Your task to perform on an android device: Go to location settings Image 0: 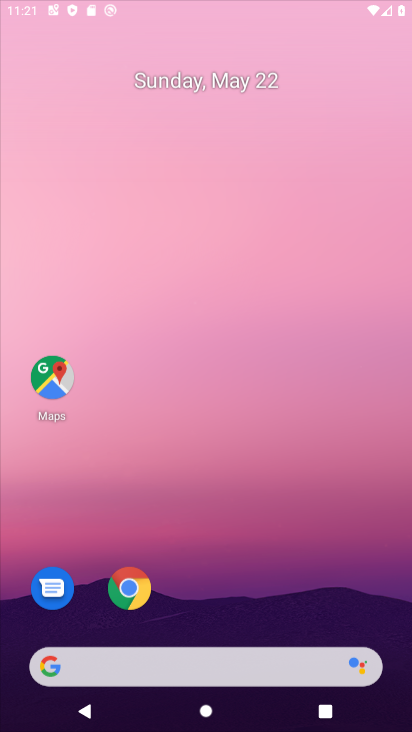
Step 0: click (116, 191)
Your task to perform on an android device: Go to location settings Image 1: 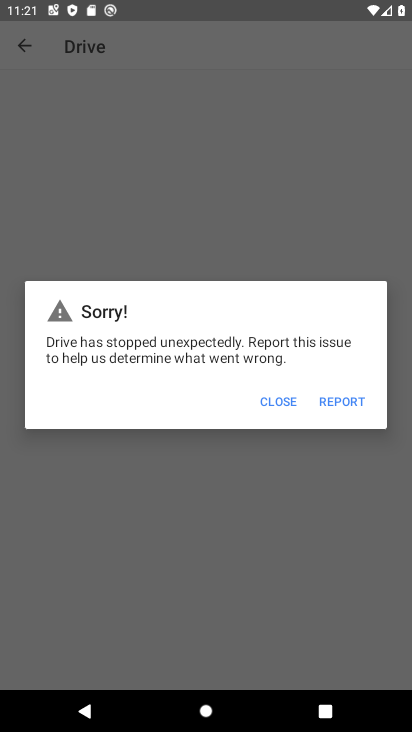
Step 1: press home button
Your task to perform on an android device: Go to location settings Image 2: 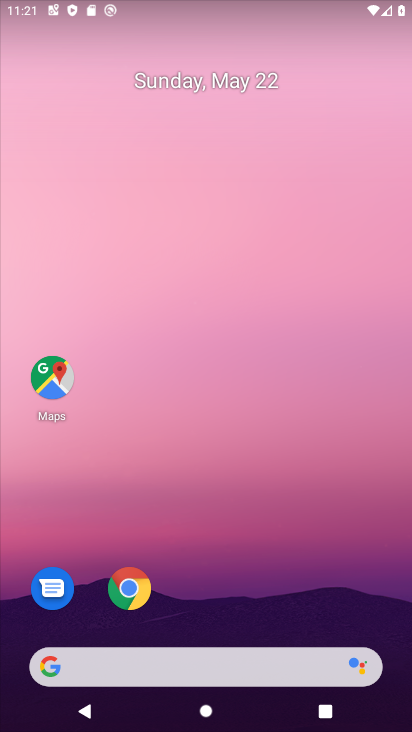
Step 2: drag from (248, 648) to (231, 110)
Your task to perform on an android device: Go to location settings Image 3: 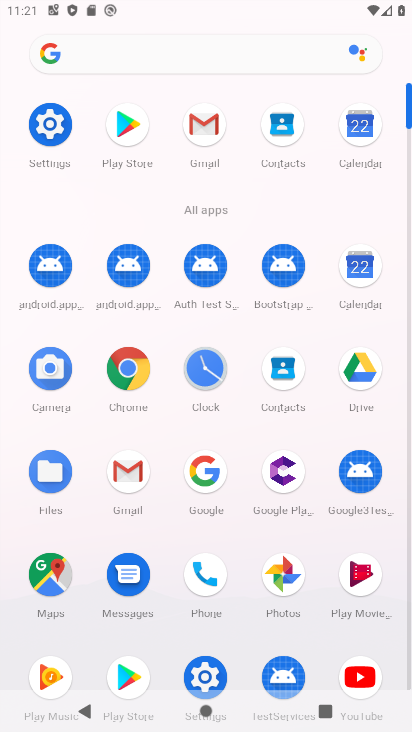
Step 3: click (67, 124)
Your task to perform on an android device: Go to location settings Image 4: 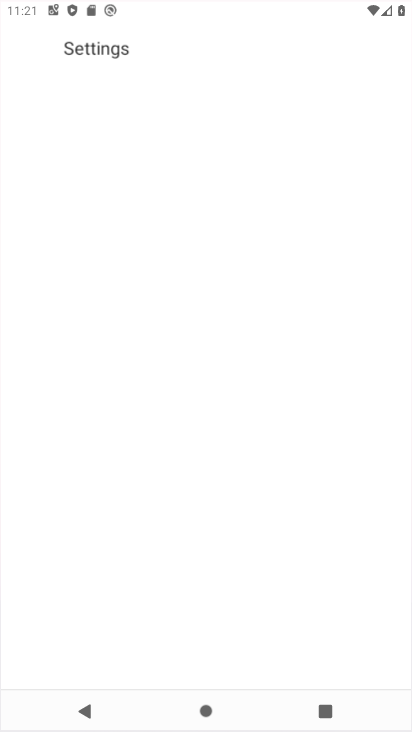
Step 4: click (67, 124)
Your task to perform on an android device: Go to location settings Image 5: 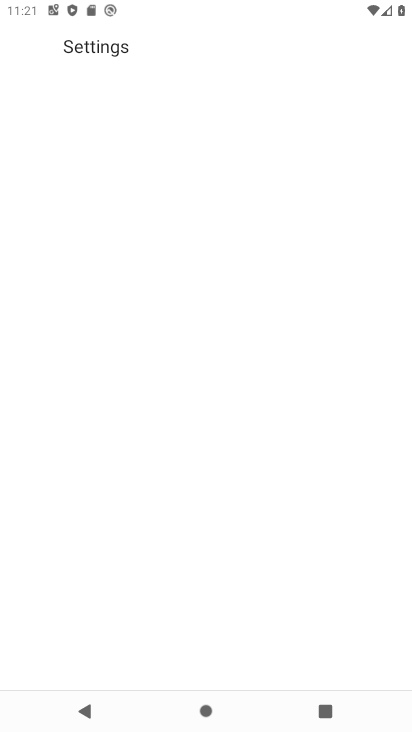
Step 5: click (67, 124)
Your task to perform on an android device: Go to location settings Image 6: 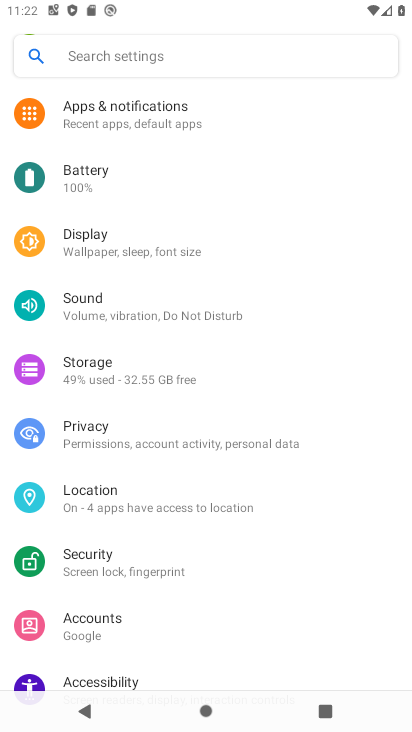
Step 6: click (127, 501)
Your task to perform on an android device: Go to location settings Image 7: 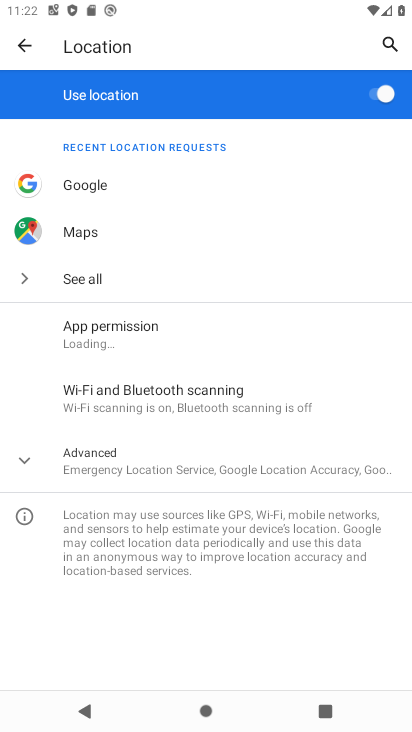
Step 7: click (91, 458)
Your task to perform on an android device: Go to location settings Image 8: 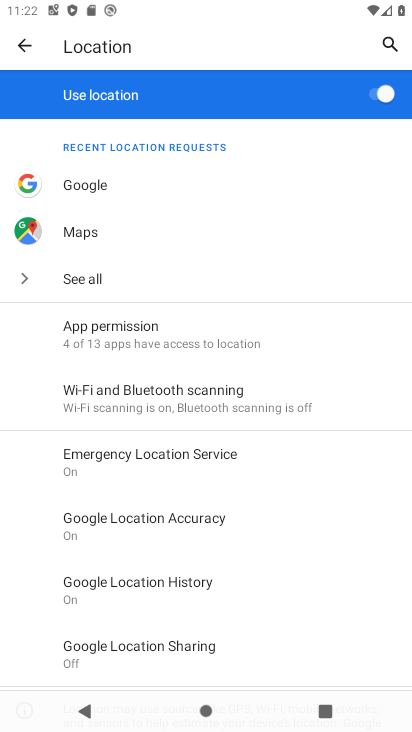
Step 8: task complete